Your task to perform on an android device: uninstall "Clock" Image 0: 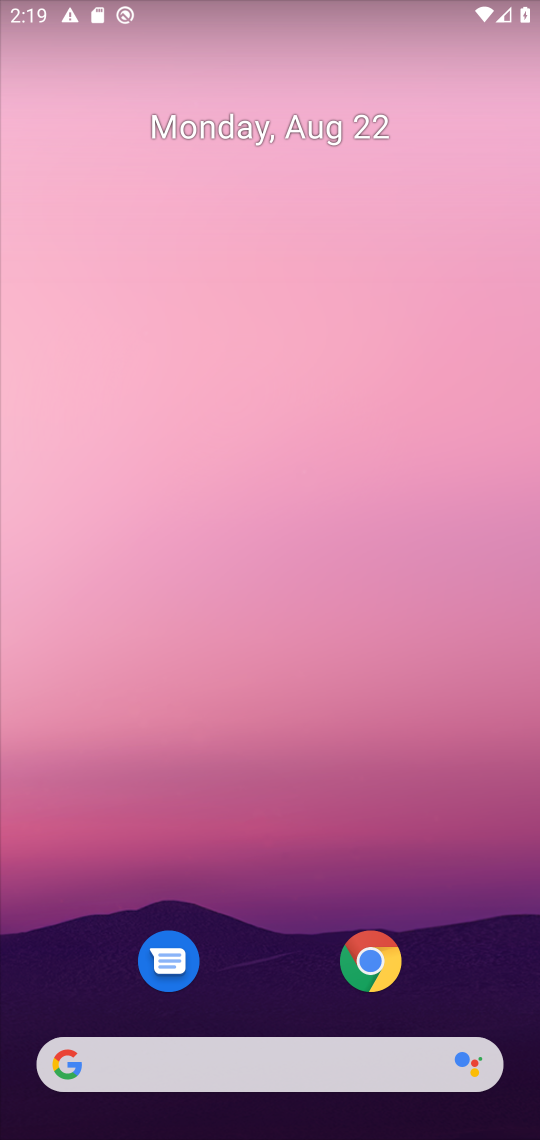
Step 0: press home button
Your task to perform on an android device: uninstall "Clock" Image 1: 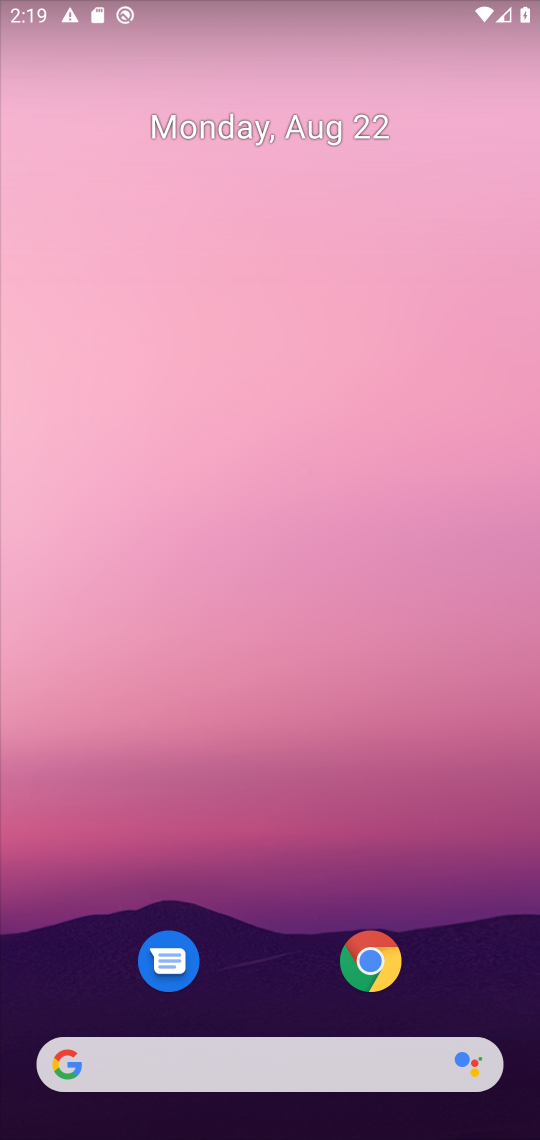
Step 1: drag from (472, 938) to (472, 128)
Your task to perform on an android device: uninstall "Clock" Image 2: 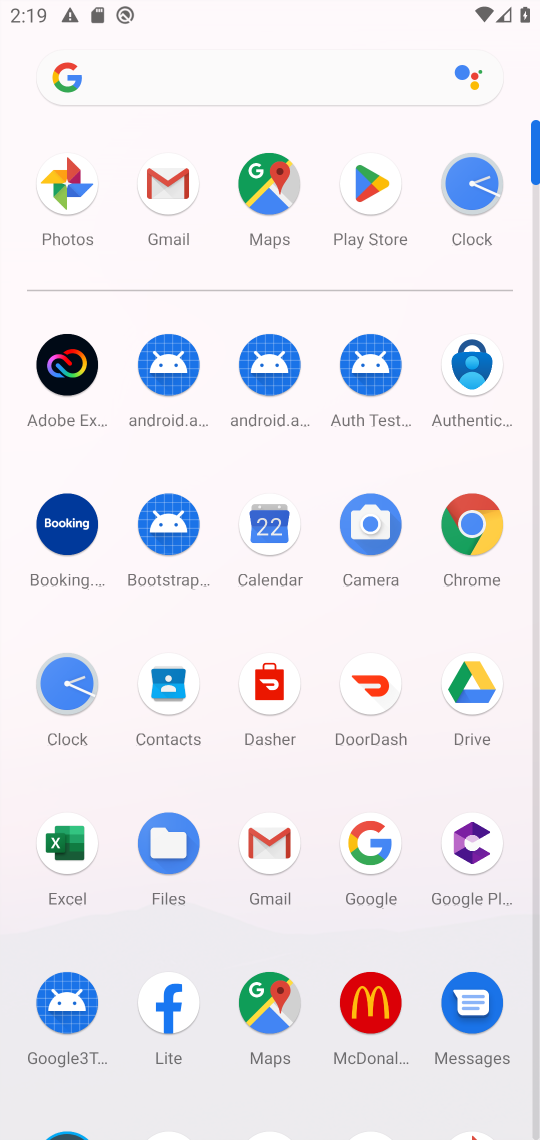
Step 2: click (468, 192)
Your task to perform on an android device: uninstall "Clock" Image 3: 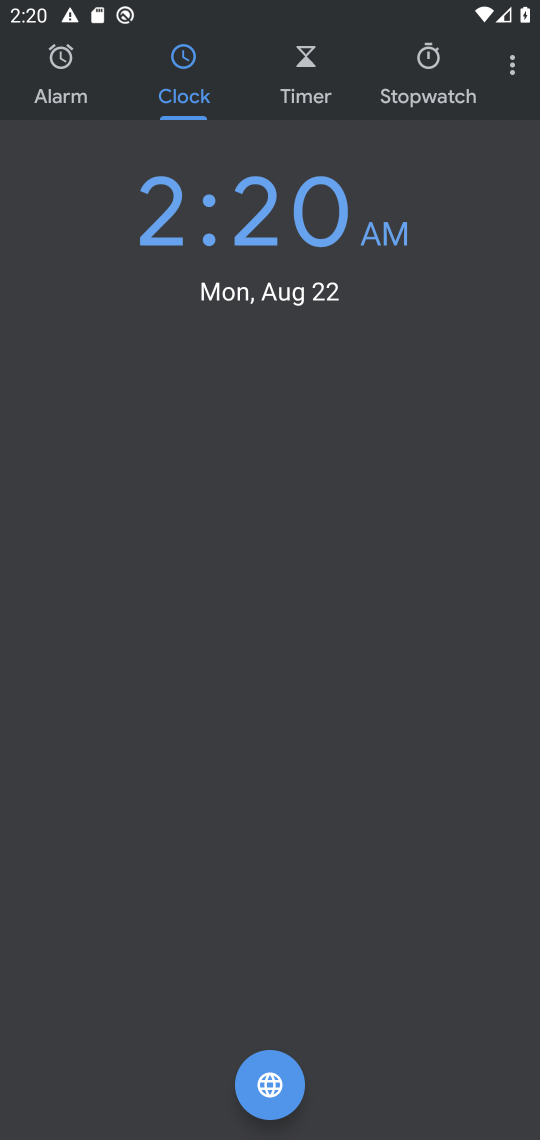
Step 3: task complete